Your task to perform on an android device: clear history in the chrome app Image 0: 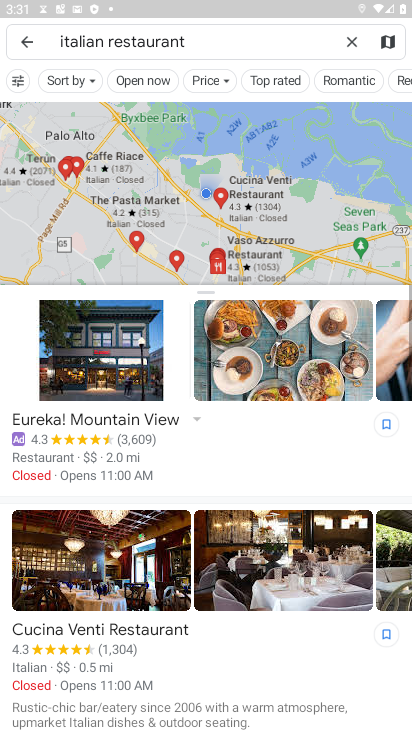
Step 0: press home button
Your task to perform on an android device: clear history in the chrome app Image 1: 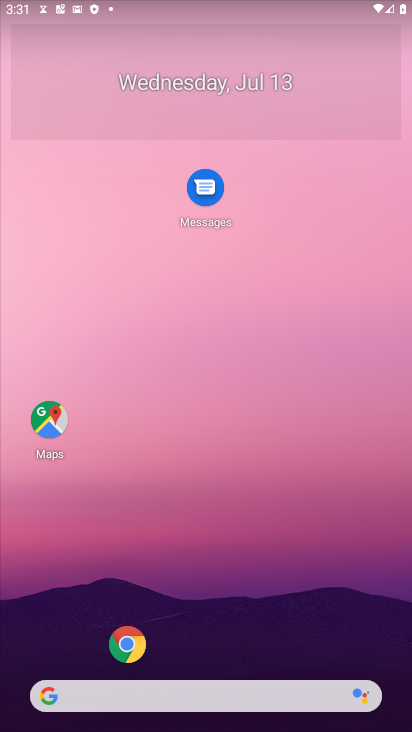
Step 1: click (126, 641)
Your task to perform on an android device: clear history in the chrome app Image 2: 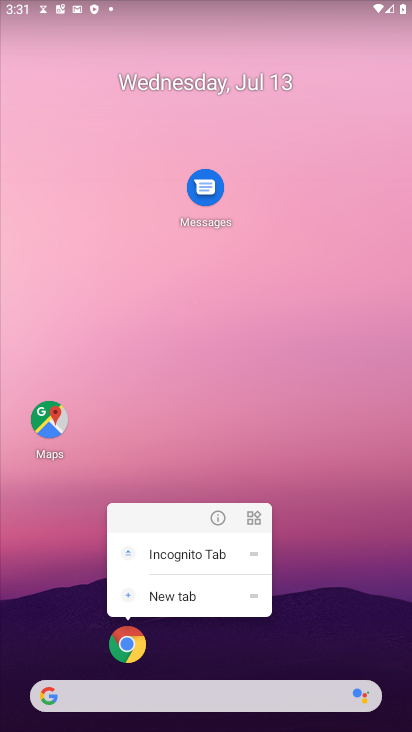
Step 2: click (144, 637)
Your task to perform on an android device: clear history in the chrome app Image 3: 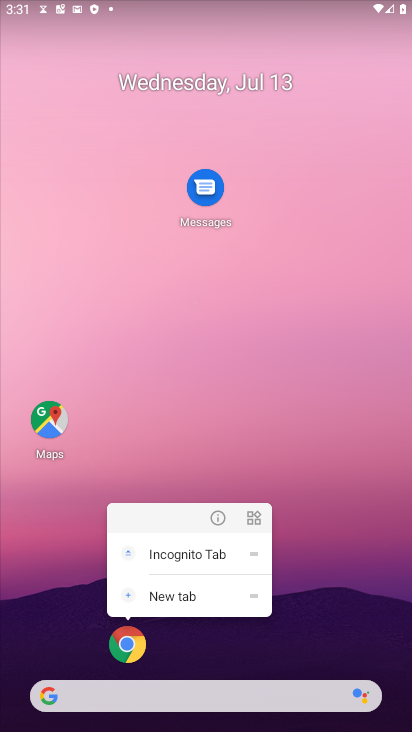
Step 3: click (125, 655)
Your task to perform on an android device: clear history in the chrome app Image 4: 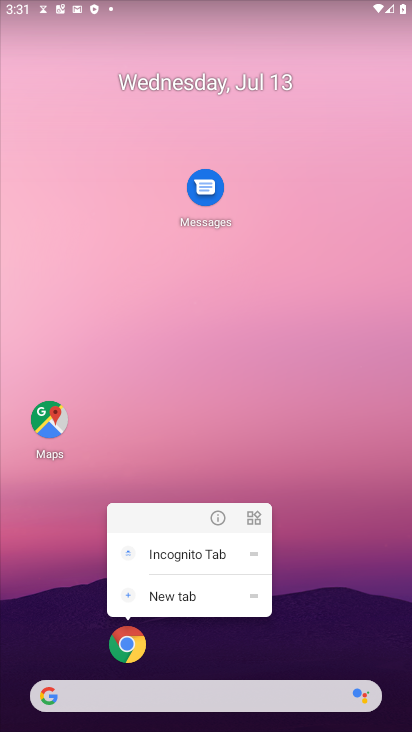
Step 4: click (127, 650)
Your task to perform on an android device: clear history in the chrome app Image 5: 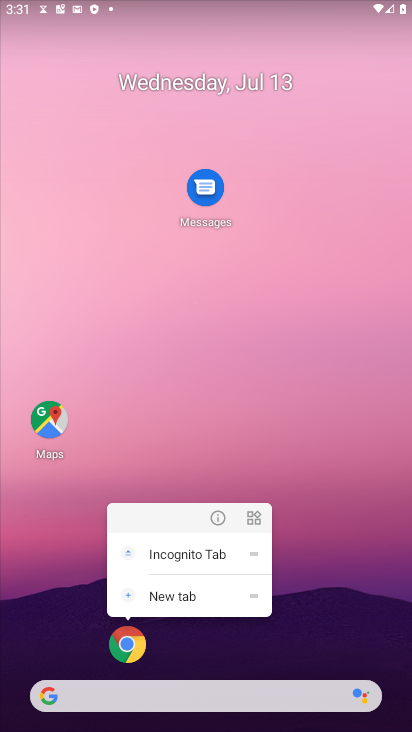
Step 5: click (127, 650)
Your task to perform on an android device: clear history in the chrome app Image 6: 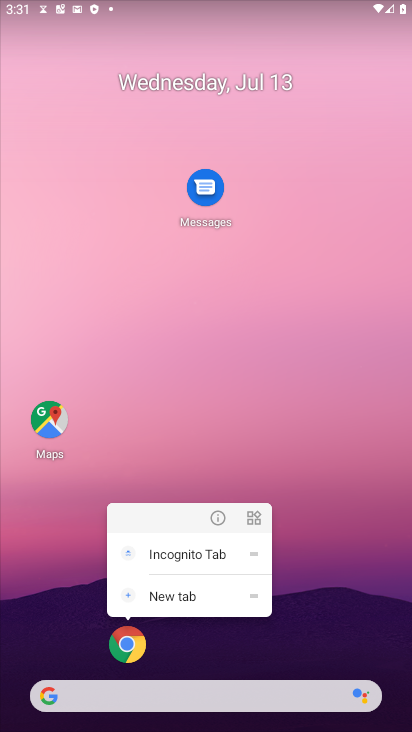
Step 6: task complete